Your task to perform on an android device: Open calendar and show me the second week of next month Image 0: 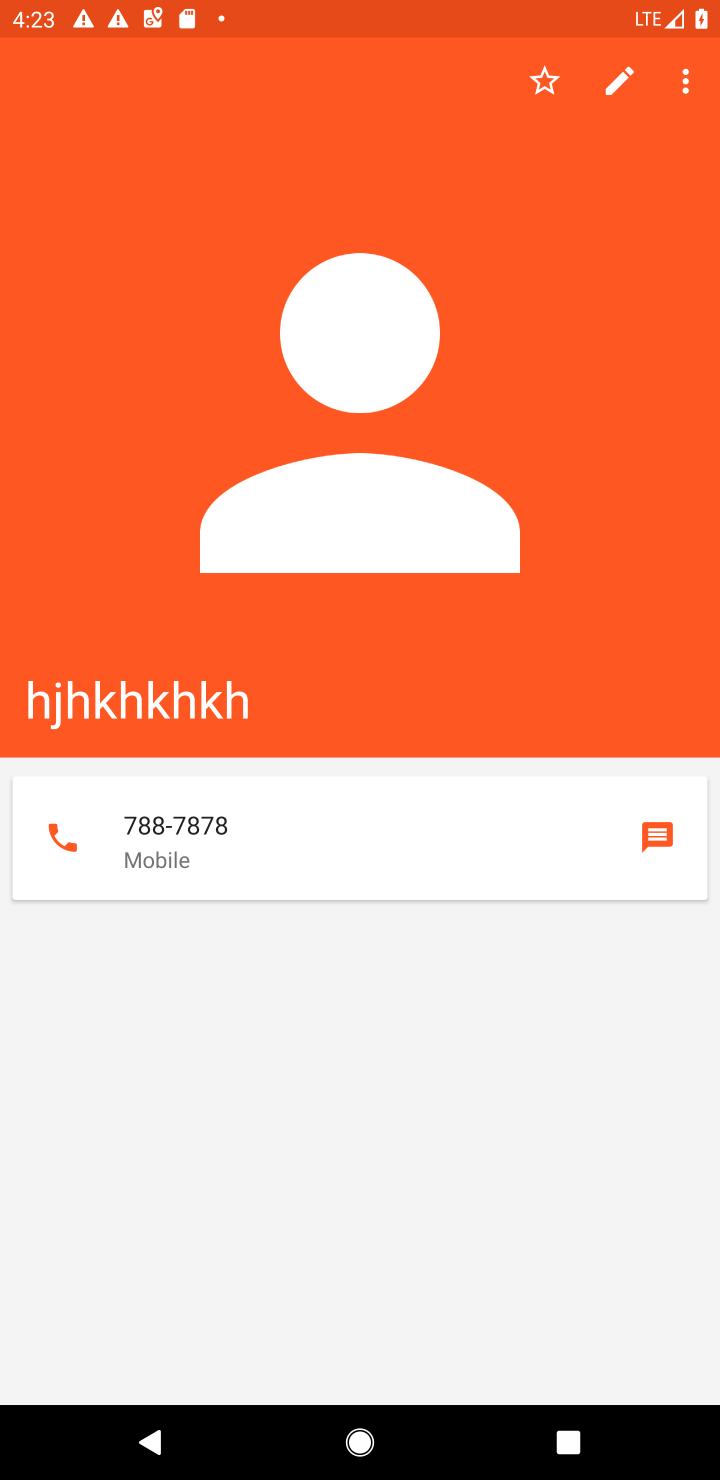
Step 0: press home button
Your task to perform on an android device: Open calendar and show me the second week of next month Image 1: 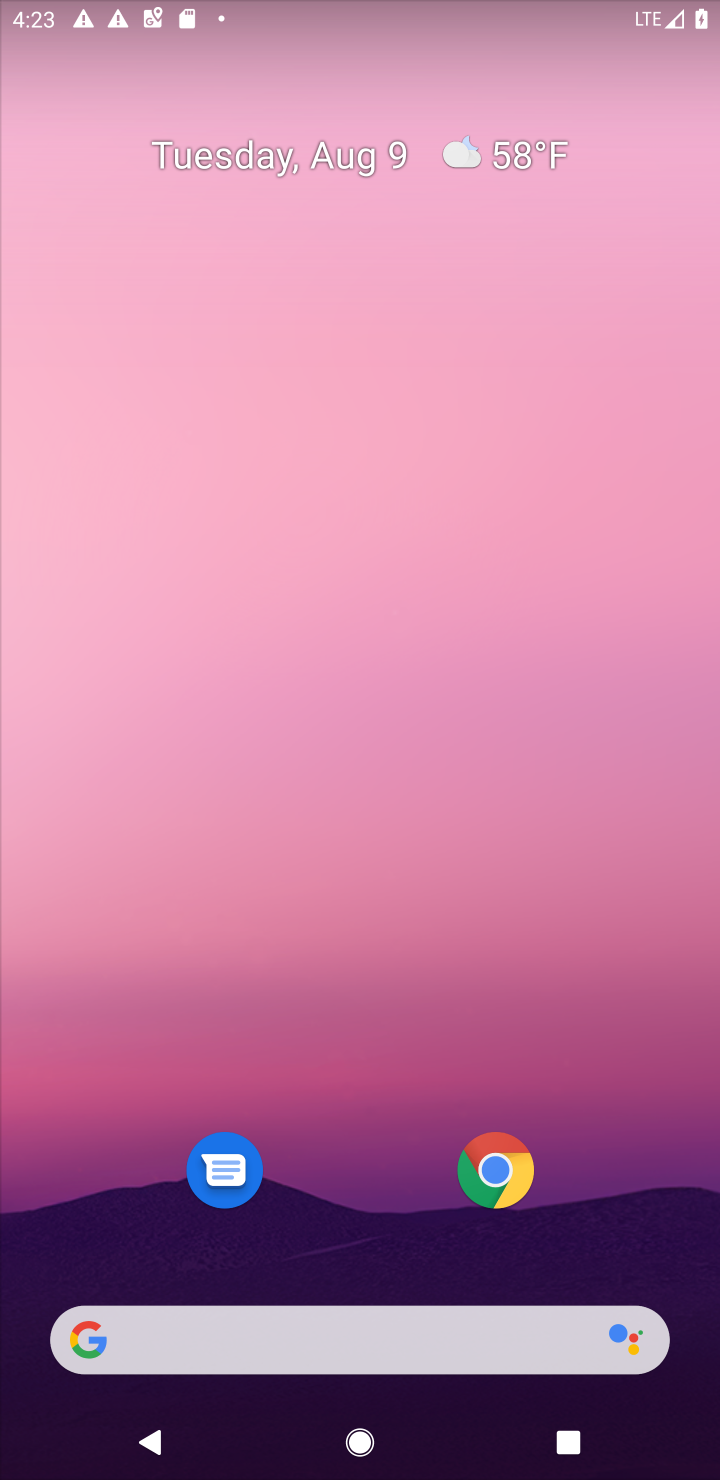
Step 1: drag from (364, 976) to (308, 366)
Your task to perform on an android device: Open calendar and show me the second week of next month Image 2: 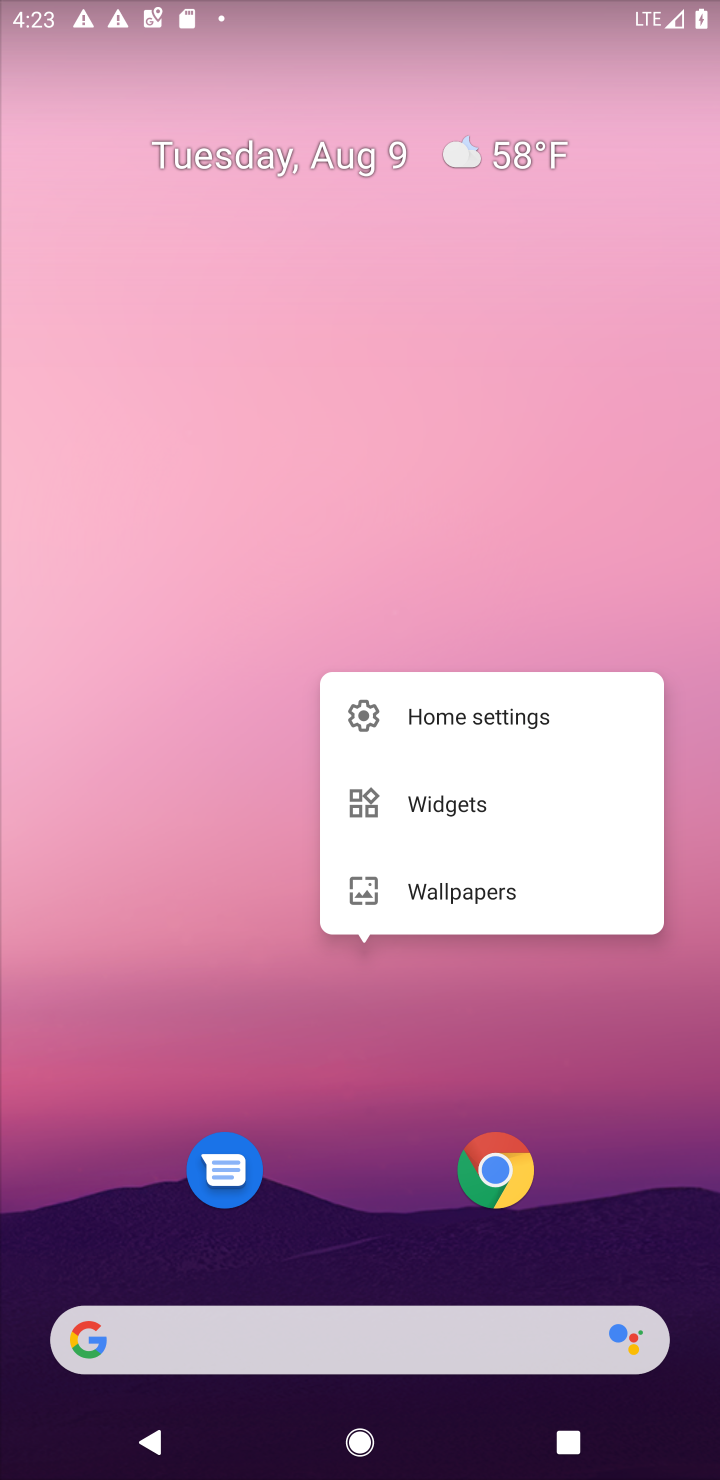
Step 2: drag from (310, 1112) to (302, 0)
Your task to perform on an android device: Open calendar and show me the second week of next month Image 3: 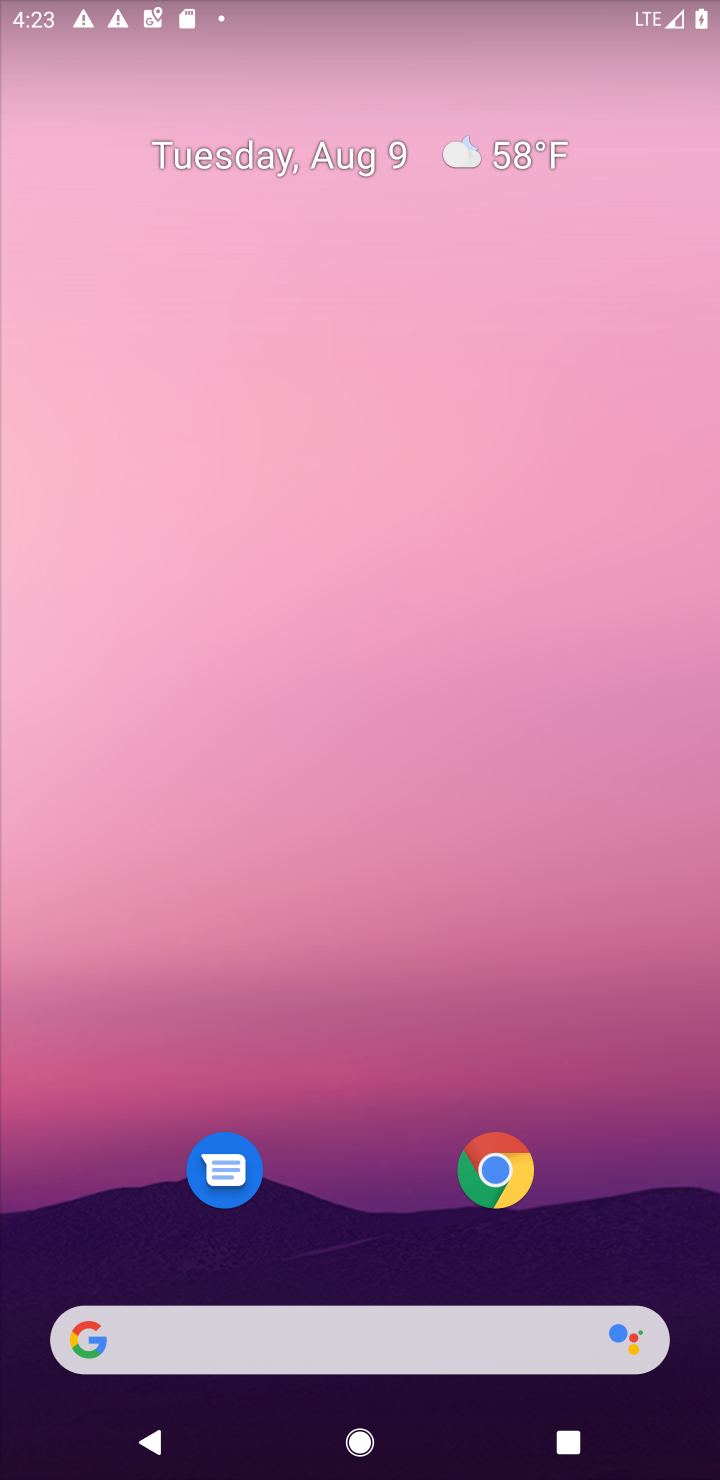
Step 3: drag from (384, 1255) to (323, 249)
Your task to perform on an android device: Open calendar and show me the second week of next month Image 4: 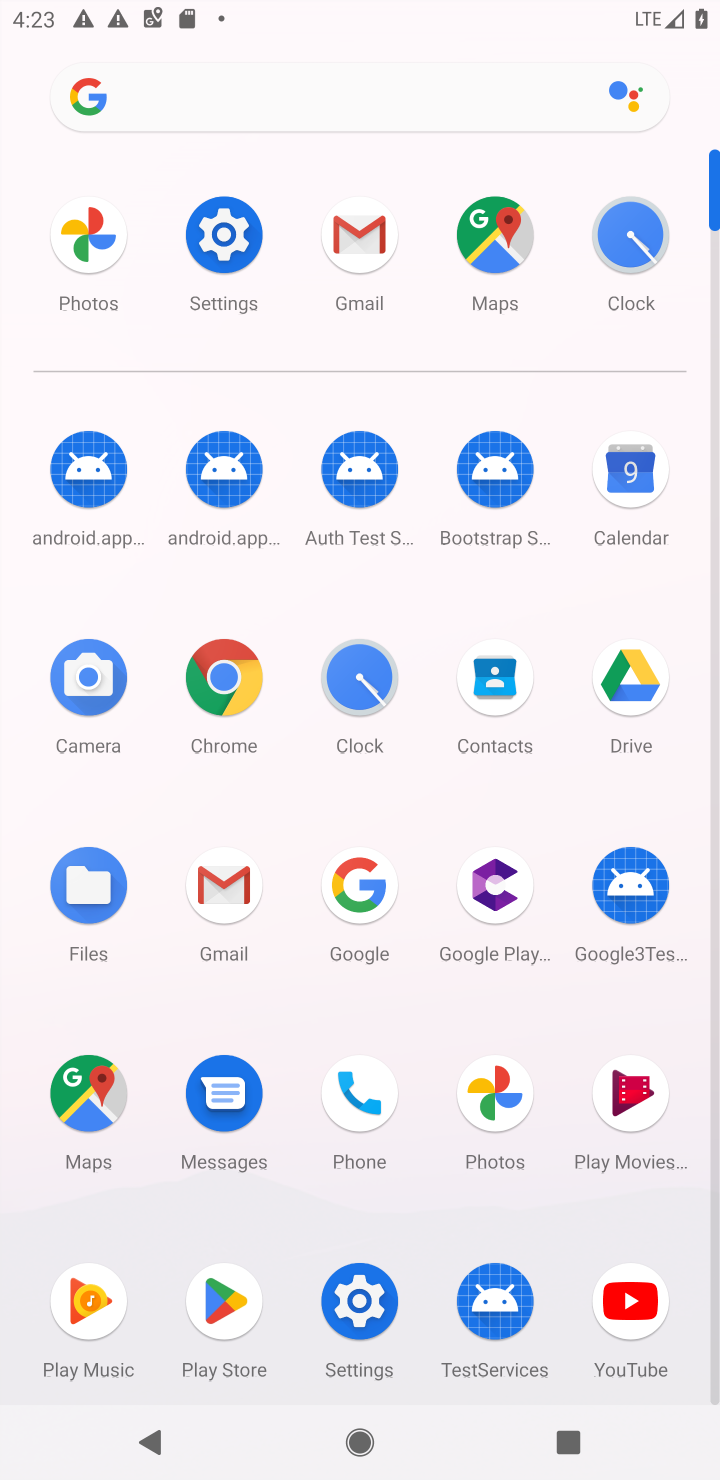
Step 4: click (627, 485)
Your task to perform on an android device: Open calendar and show me the second week of next month Image 5: 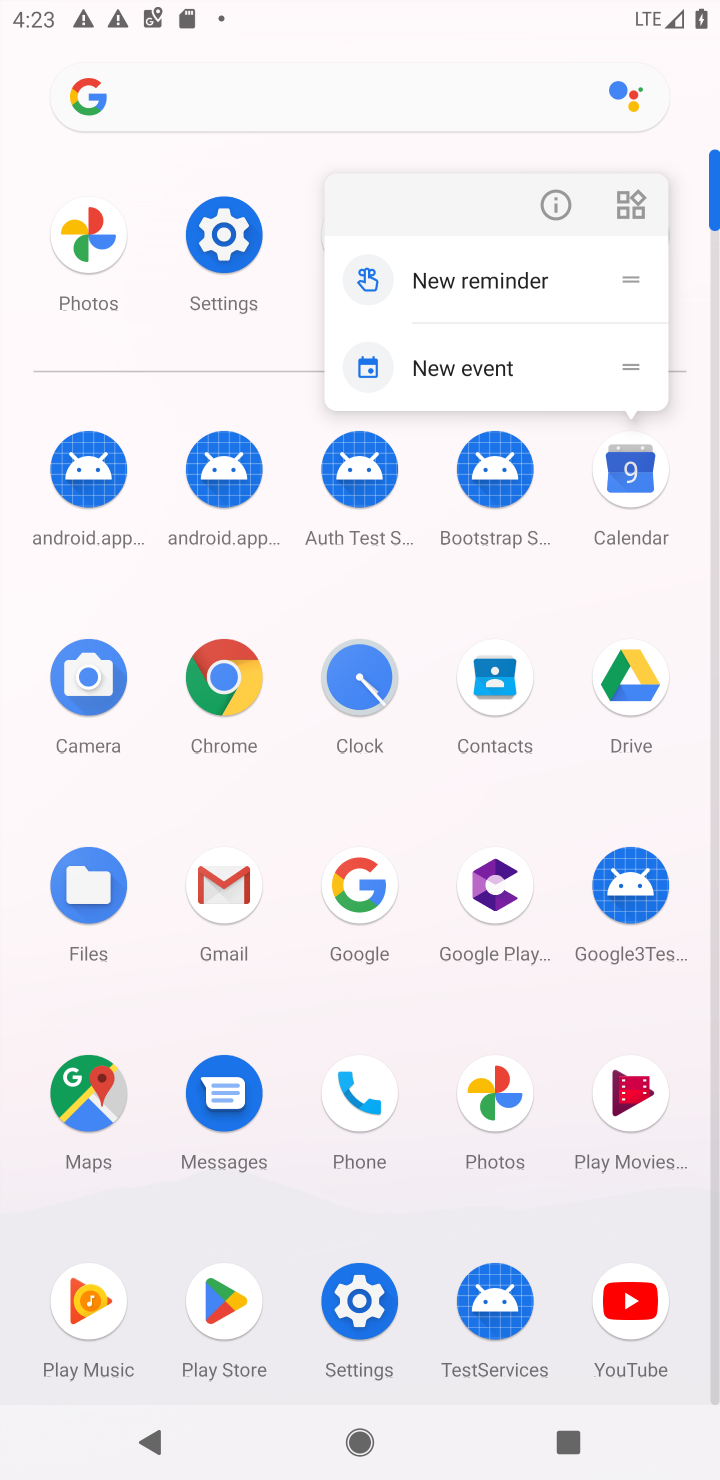
Step 5: click (627, 470)
Your task to perform on an android device: Open calendar and show me the second week of next month Image 6: 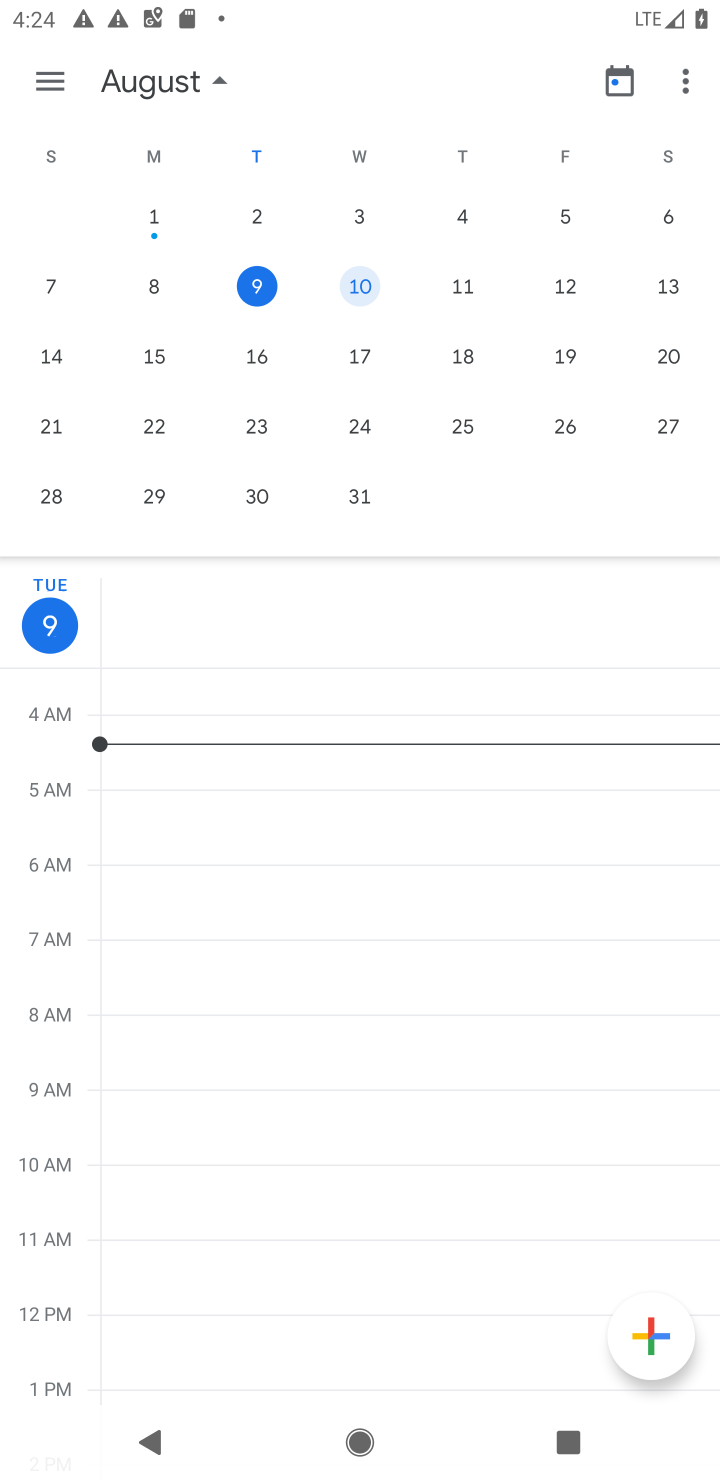
Step 6: task complete